Your task to perform on an android device: install app "Fetch Rewards" Image 0: 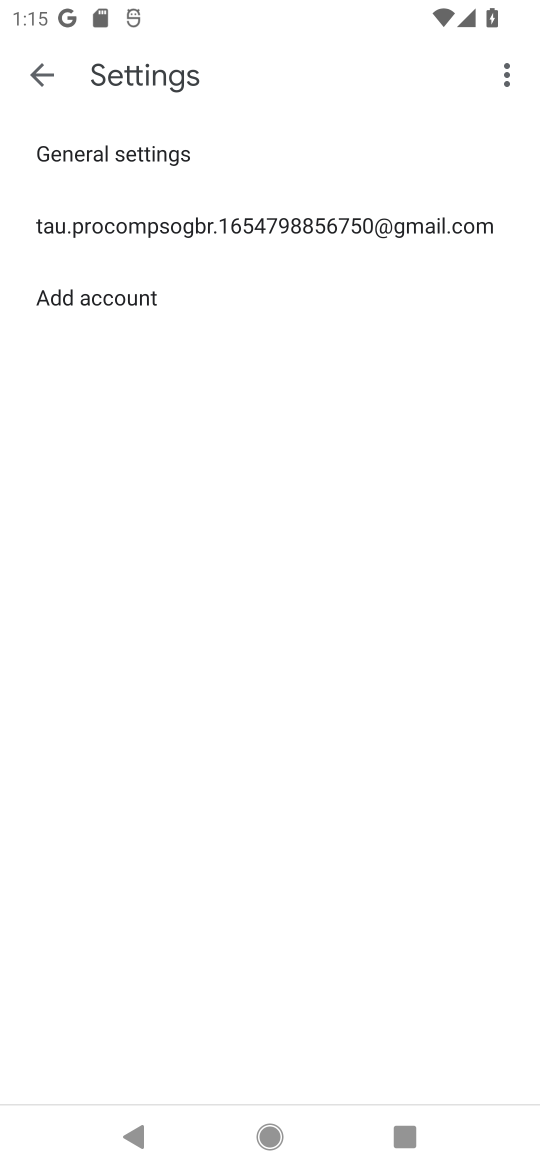
Step 0: press back button
Your task to perform on an android device: install app "Fetch Rewards" Image 1: 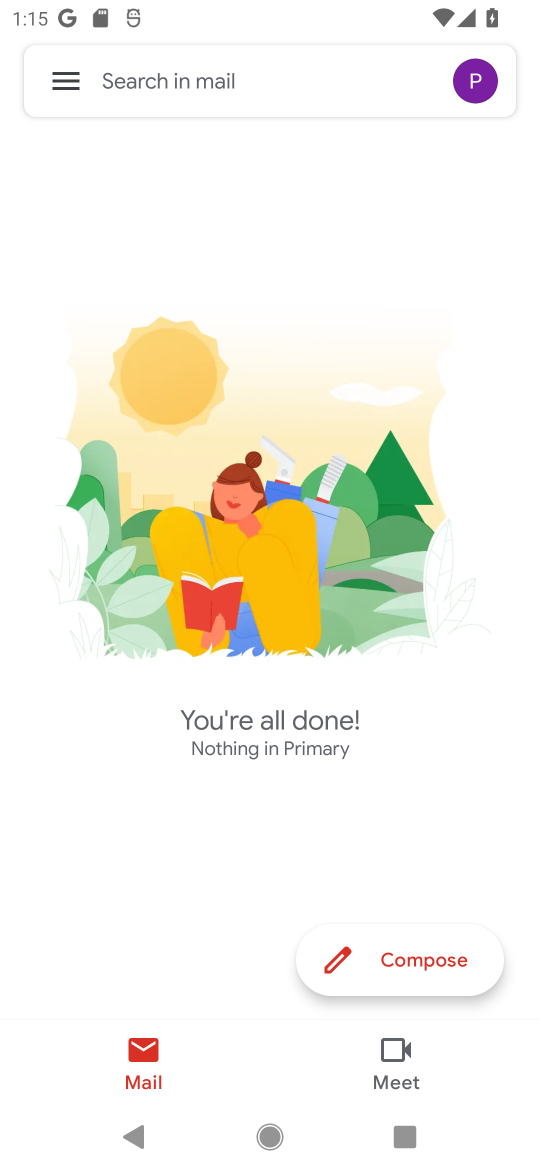
Step 1: press back button
Your task to perform on an android device: install app "Fetch Rewards" Image 2: 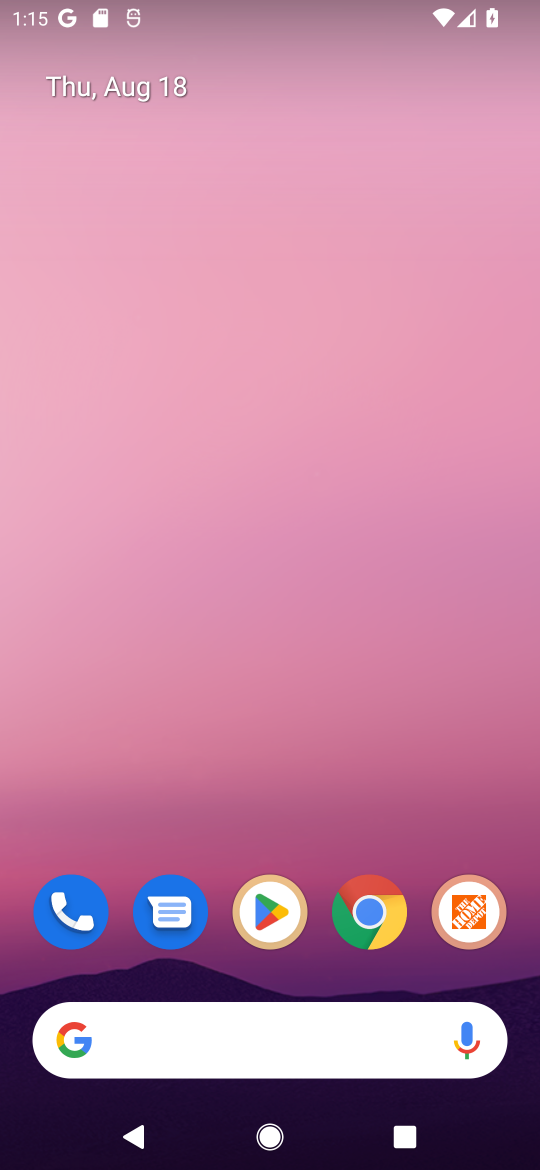
Step 2: click (253, 908)
Your task to perform on an android device: install app "Fetch Rewards" Image 3: 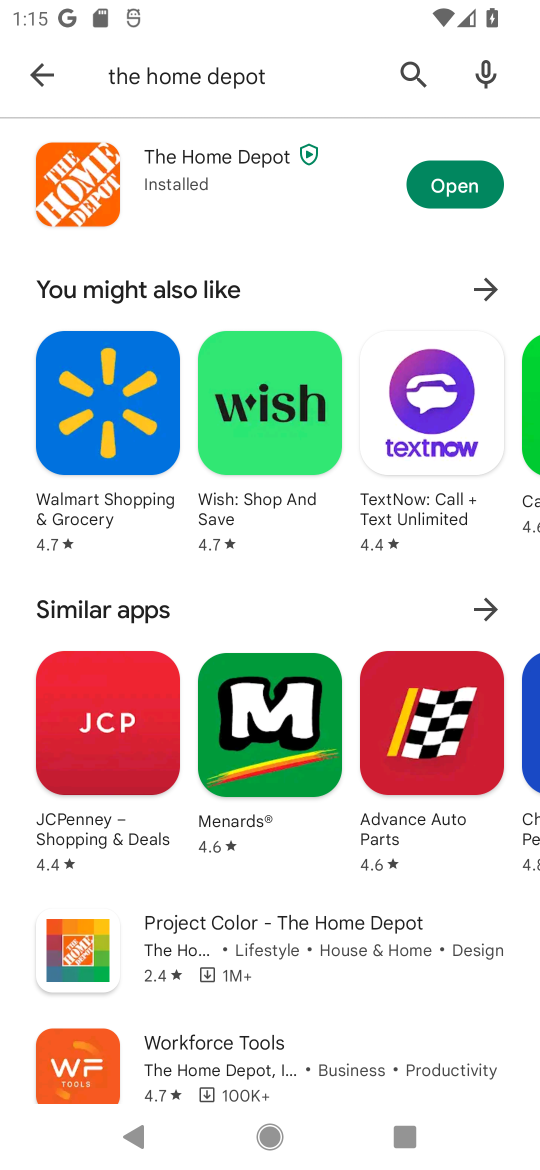
Step 3: click (401, 72)
Your task to perform on an android device: install app "Fetch Rewards" Image 4: 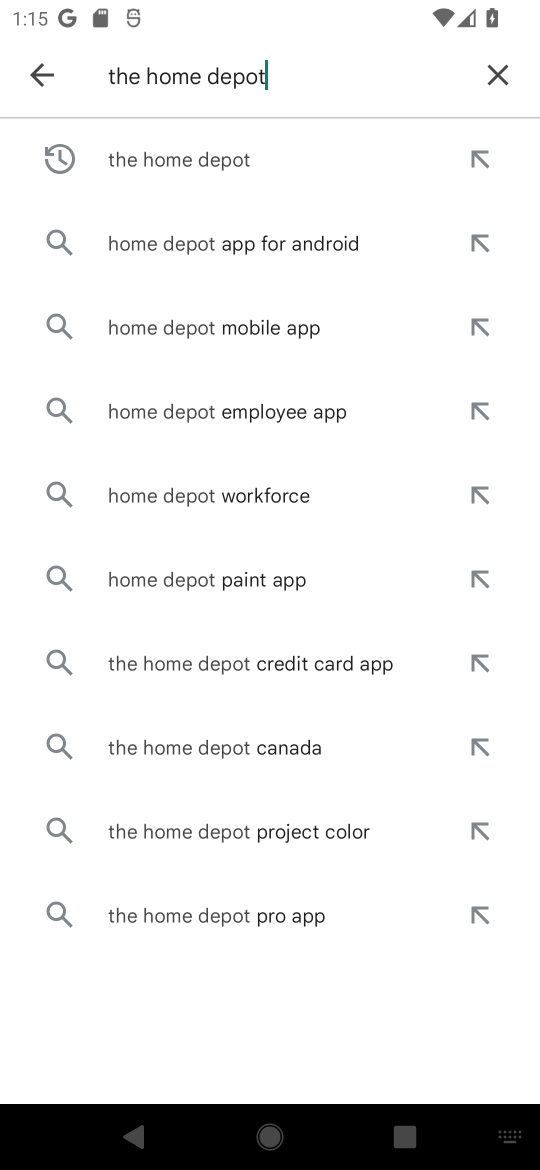
Step 4: click (494, 58)
Your task to perform on an android device: install app "Fetch Rewards" Image 5: 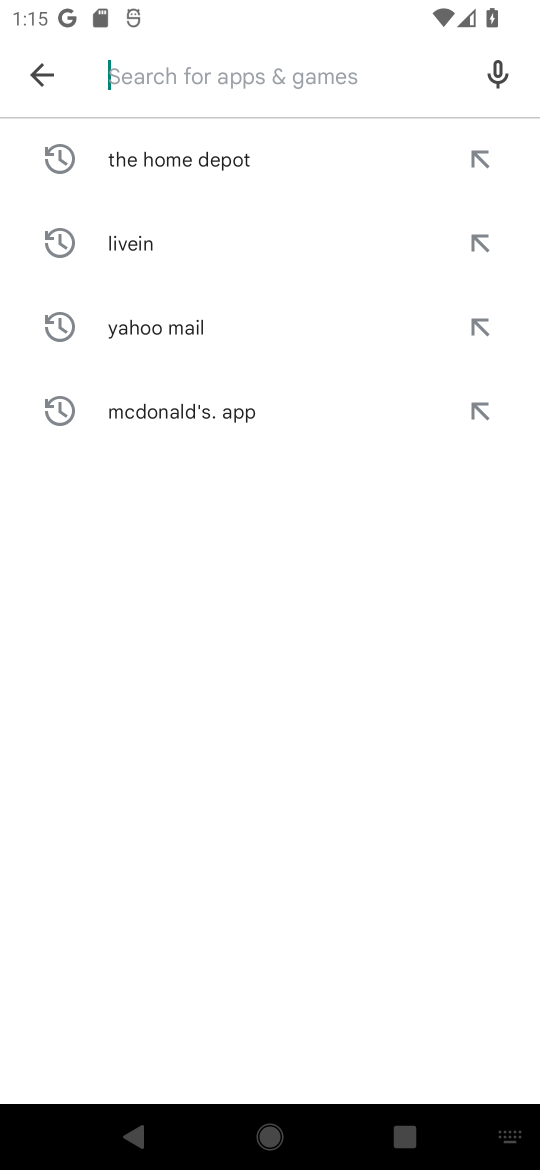
Step 5: click (197, 73)
Your task to perform on an android device: install app "Fetch Rewards" Image 6: 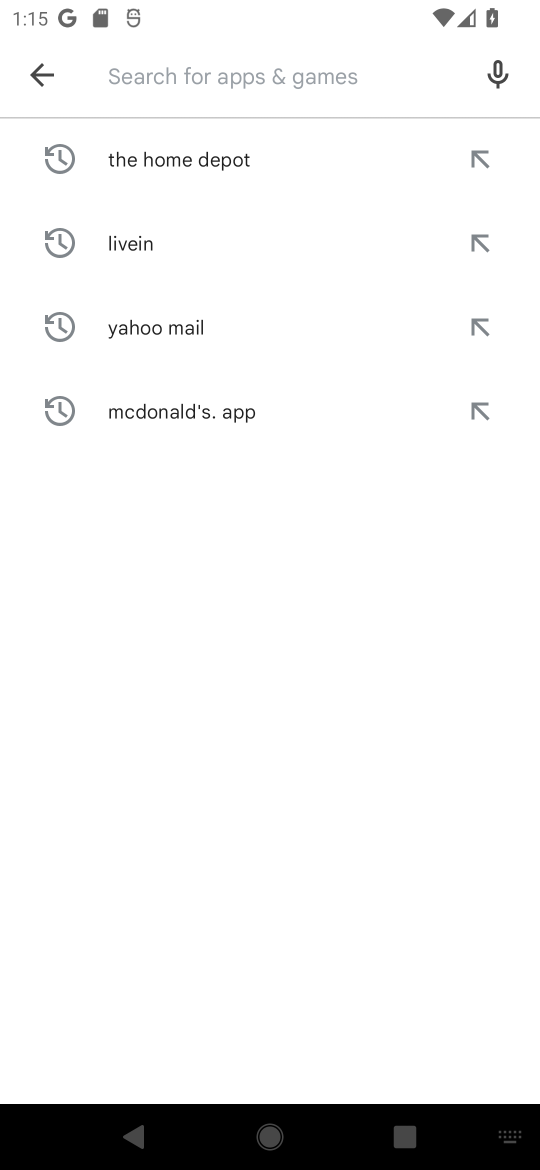
Step 6: type "Fetch Rewards"
Your task to perform on an android device: install app "Fetch Rewards" Image 7: 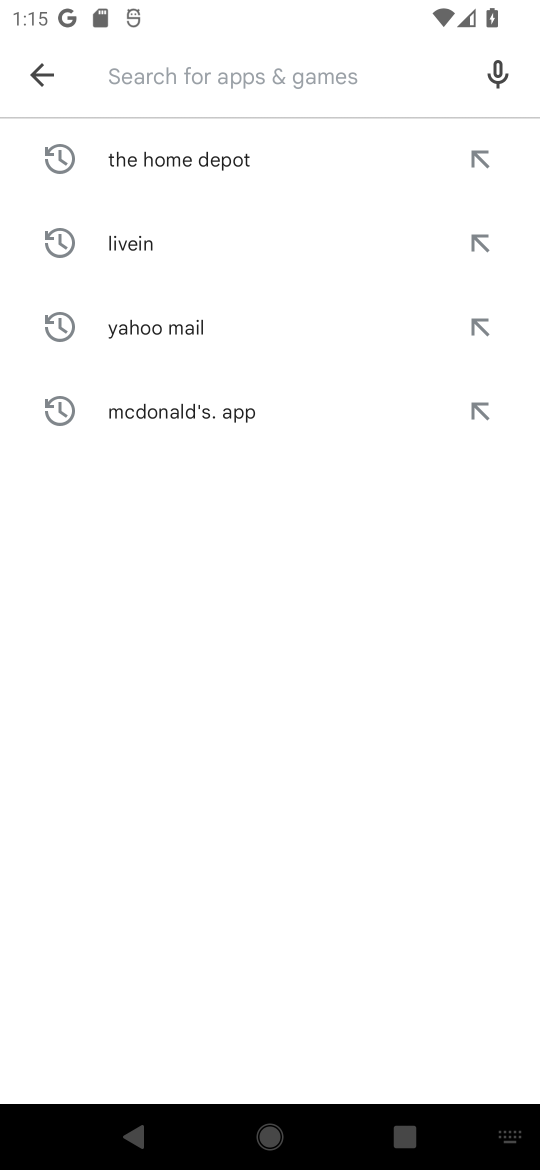
Step 7: click (234, 760)
Your task to perform on an android device: install app "Fetch Rewards" Image 8: 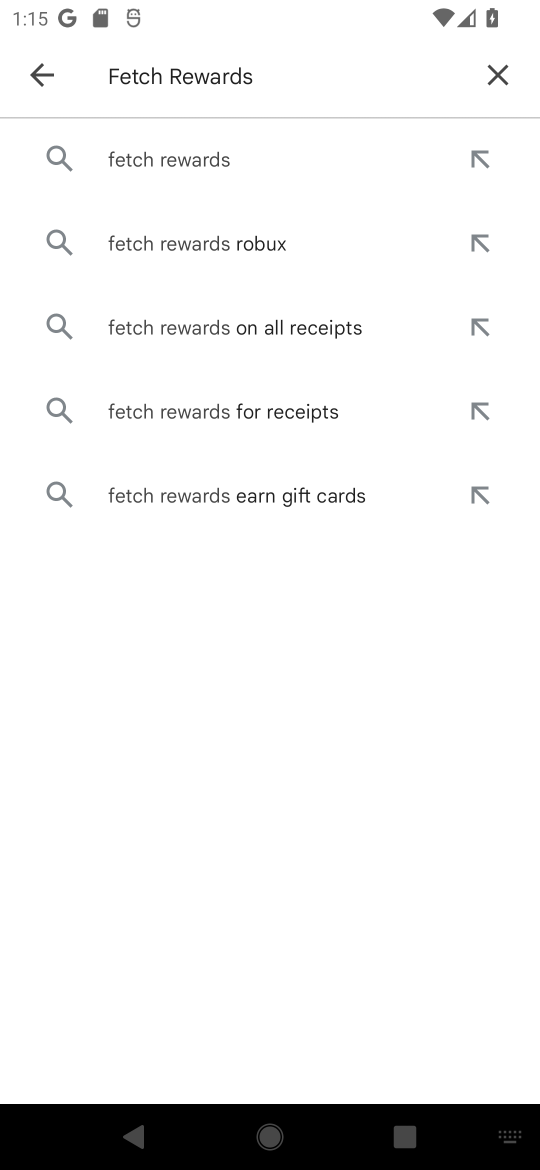
Step 8: click (244, 147)
Your task to perform on an android device: install app "Fetch Rewards" Image 9: 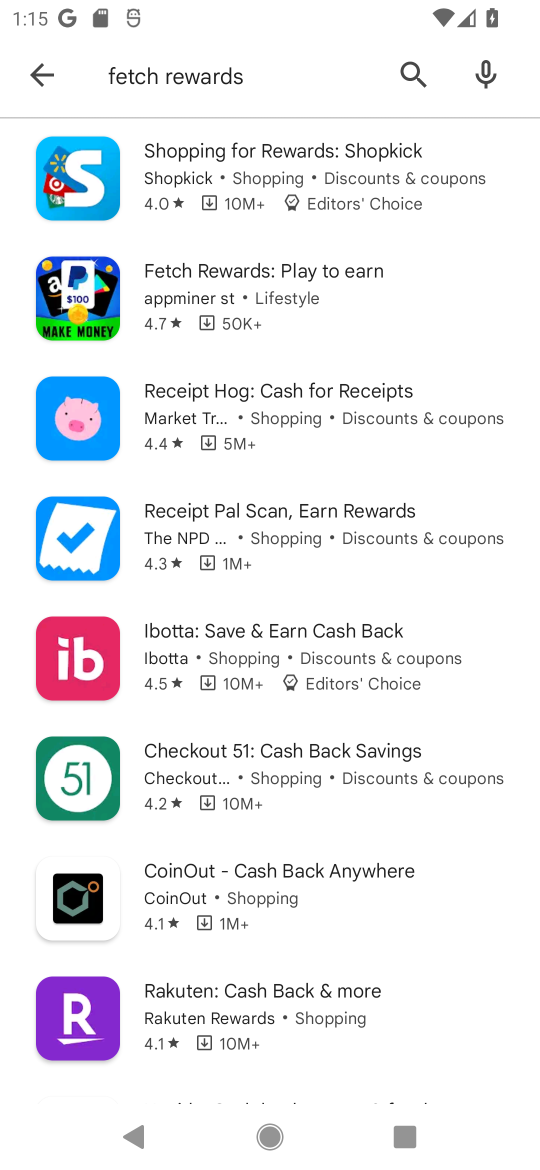
Step 9: click (178, 293)
Your task to perform on an android device: install app "Fetch Rewards" Image 10: 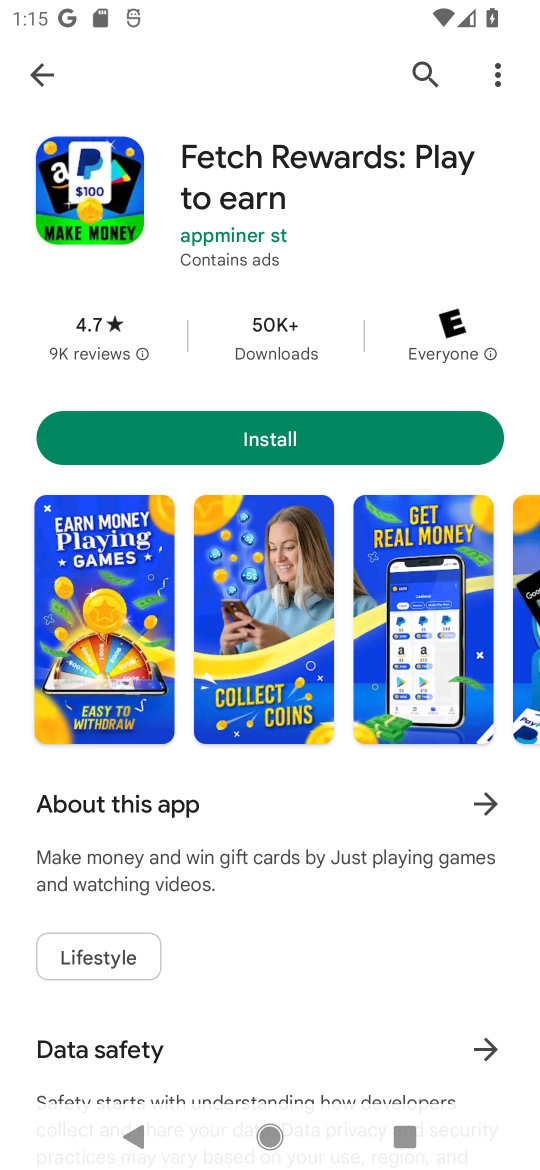
Step 10: click (239, 439)
Your task to perform on an android device: install app "Fetch Rewards" Image 11: 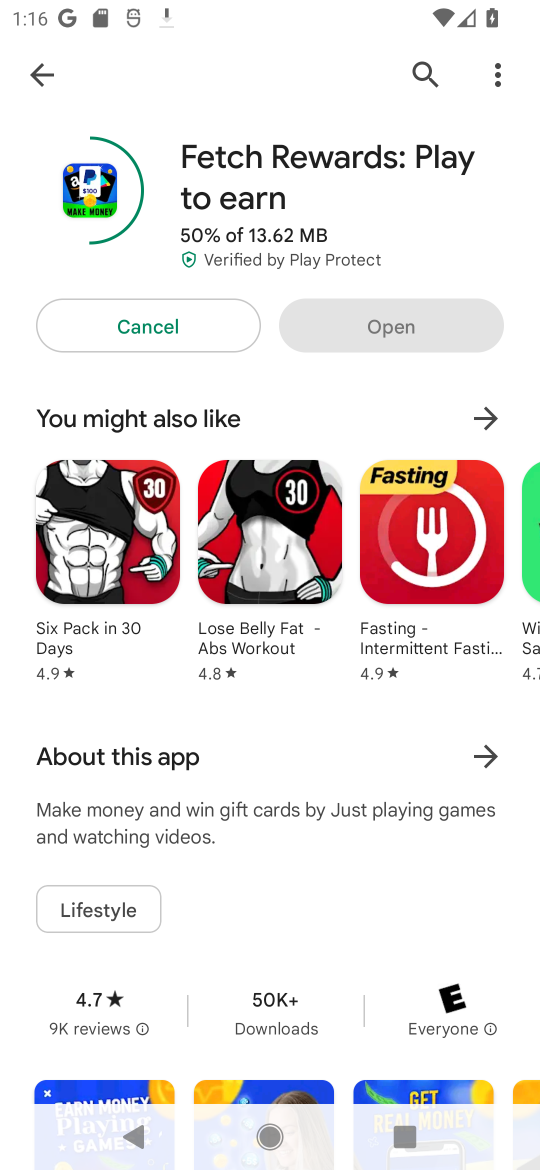
Step 11: task complete